Your task to perform on an android device: turn off translation in the chrome app Image 0: 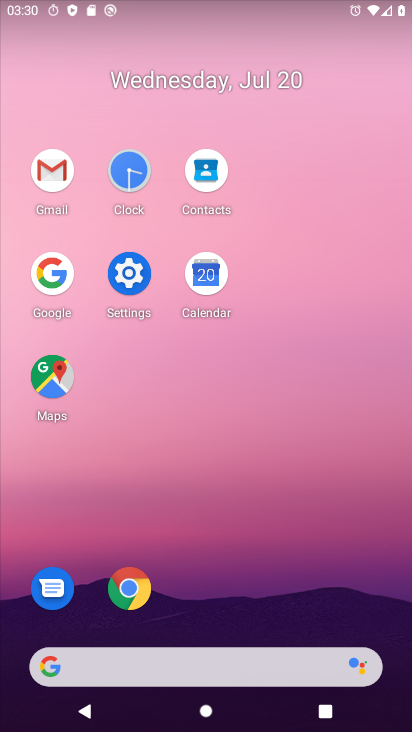
Step 0: click (116, 598)
Your task to perform on an android device: turn off translation in the chrome app Image 1: 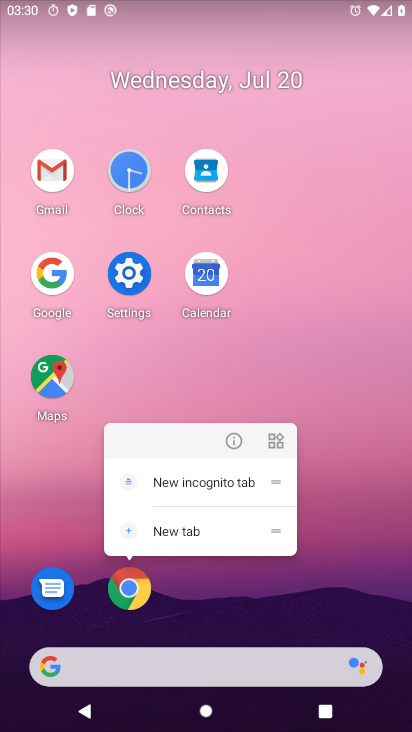
Step 1: click (119, 600)
Your task to perform on an android device: turn off translation in the chrome app Image 2: 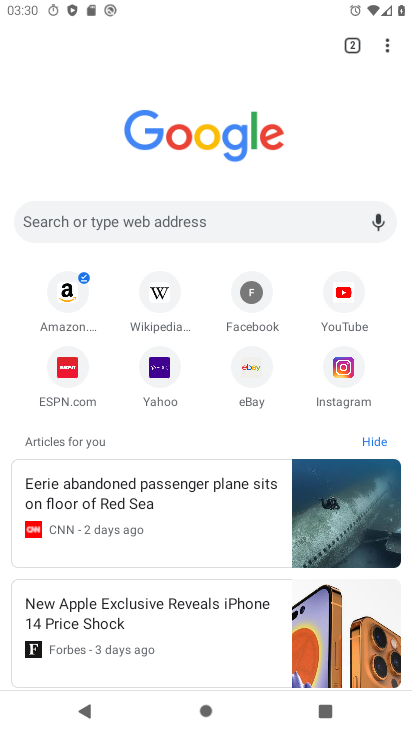
Step 2: click (388, 40)
Your task to perform on an android device: turn off translation in the chrome app Image 3: 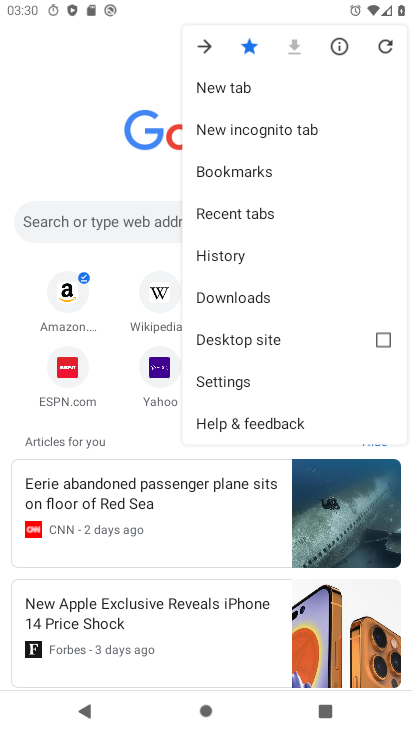
Step 3: click (219, 382)
Your task to perform on an android device: turn off translation in the chrome app Image 4: 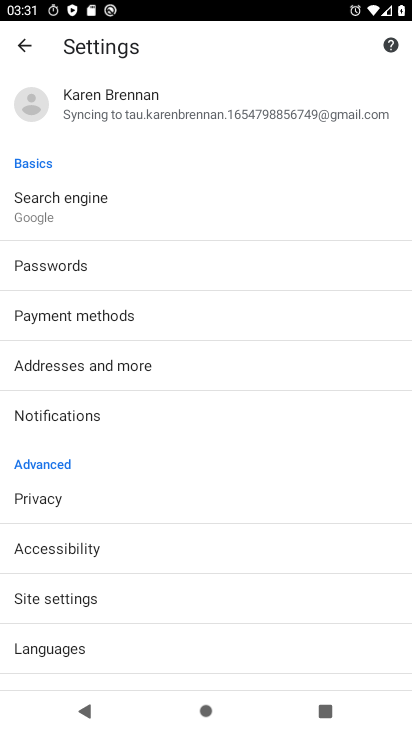
Step 4: click (114, 645)
Your task to perform on an android device: turn off translation in the chrome app Image 5: 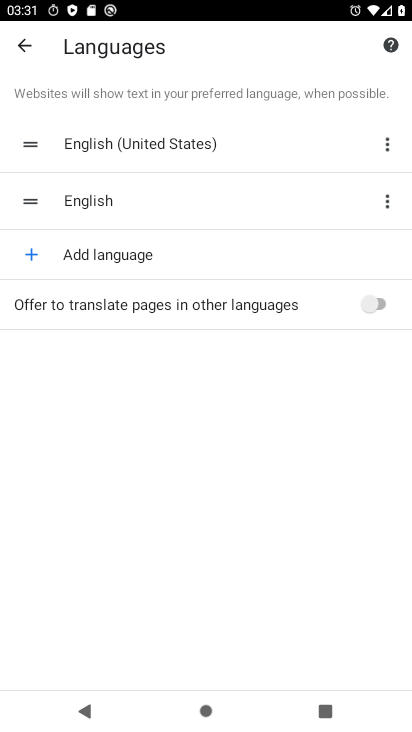
Step 5: task complete